Your task to perform on an android device: Go to Wikipedia Image 0: 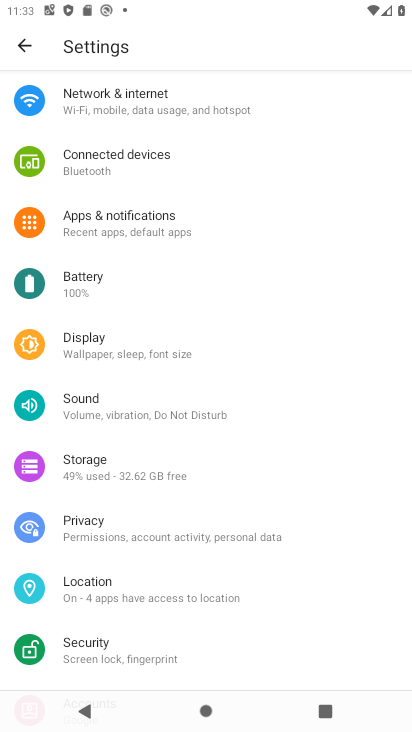
Step 0: press home button
Your task to perform on an android device: Go to Wikipedia Image 1: 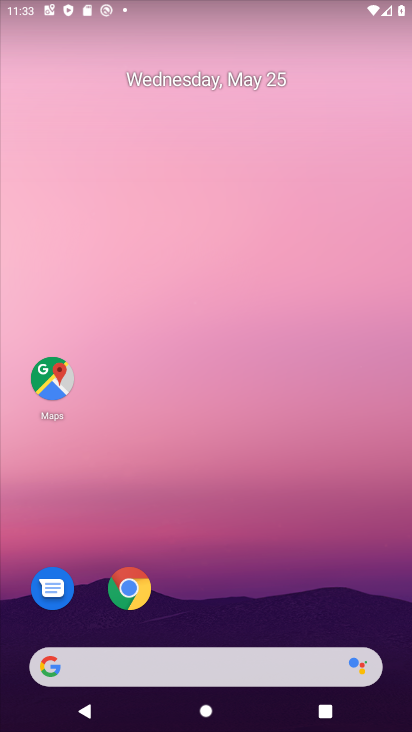
Step 1: drag from (241, 584) to (235, 66)
Your task to perform on an android device: Go to Wikipedia Image 2: 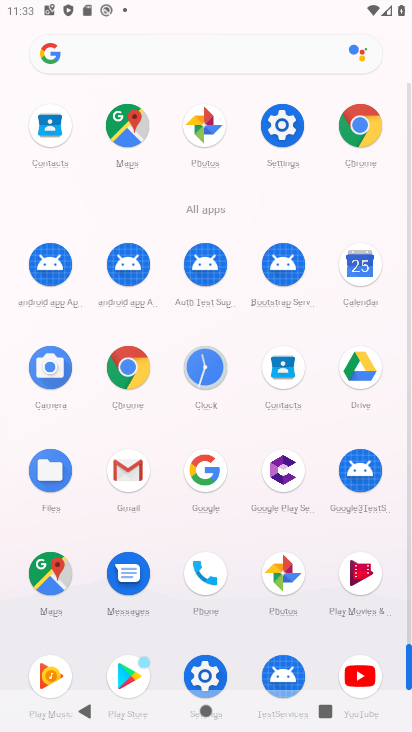
Step 2: drag from (12, 523) to (24, 333)
Your task to perform on an android device: Go to Wikipedia Image 3: 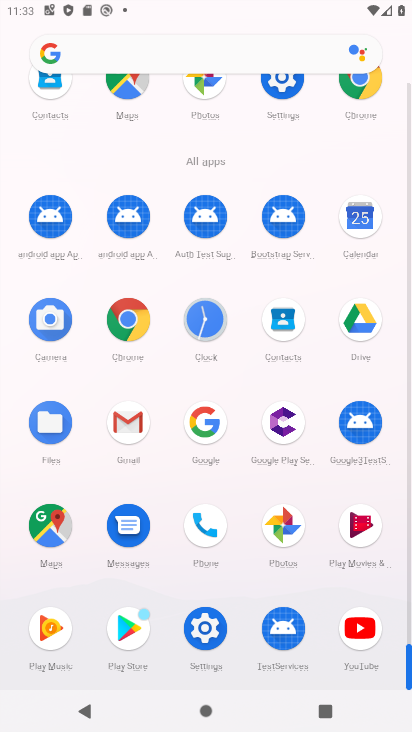
Step 3: click (123, 312)
Your task to perform on an android device: Go to Wikipedia Image 4: 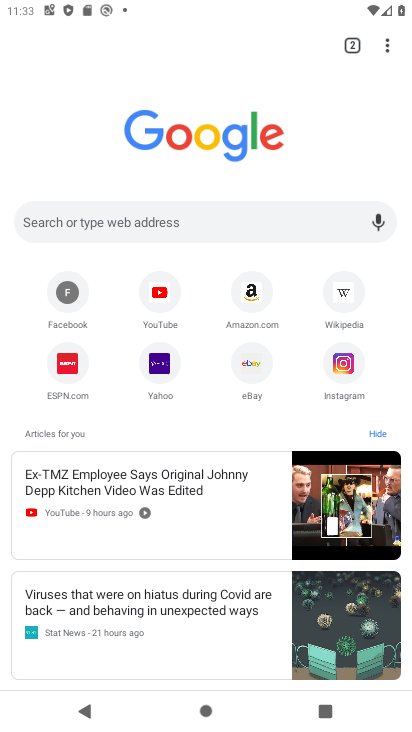
Step 4: click (337, 283)
Your task to perform on an android device: Go to Wikipedia Image 5: 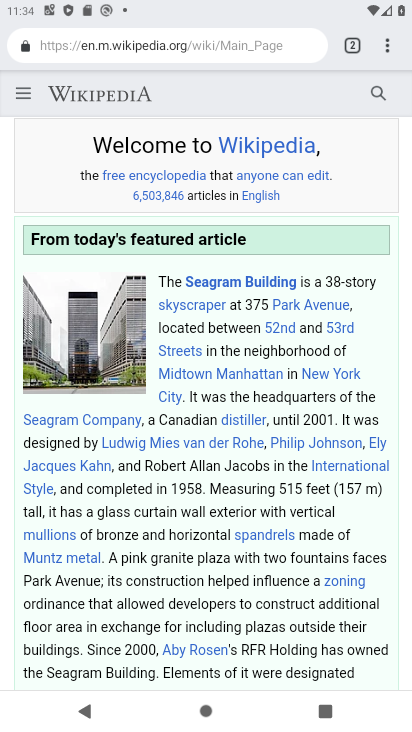
Step 5: task complete